Your task to perform on an android device: What is the recent news? Image 0: 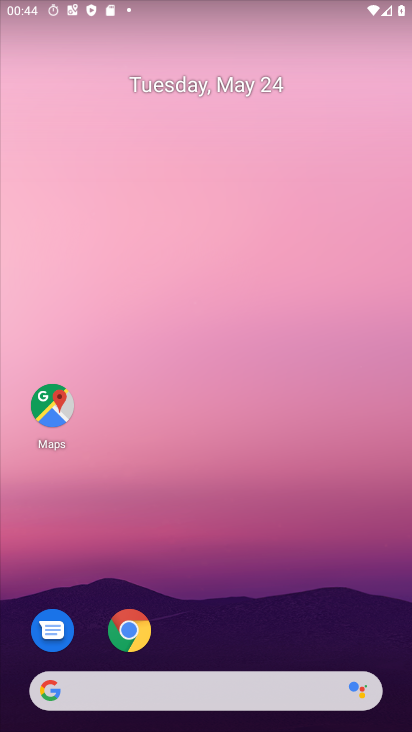
Step 0: click (96, 687)
Your task to perform on an android device: What is the recent news? Image 1: 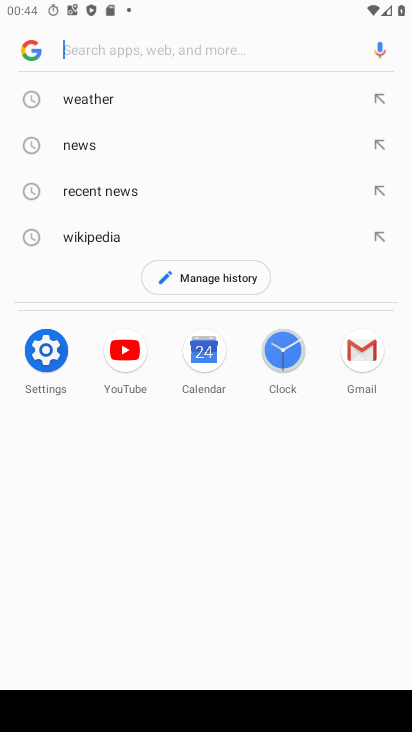
Step 1: click (87, 196)
Your task to perform on an android device: What is the recent news? Image 2: 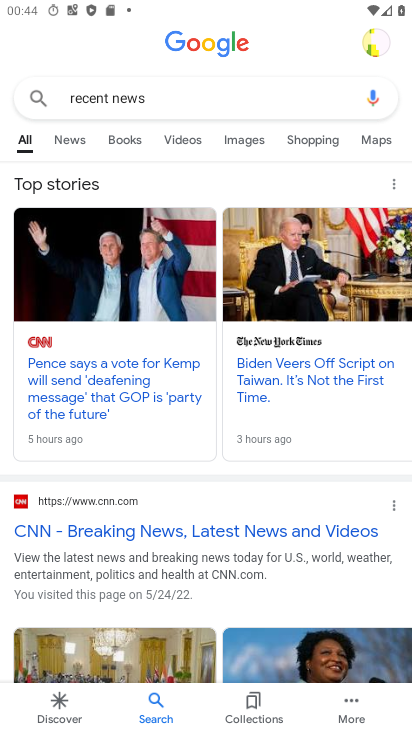
Step 2: click (65, 139)
Your task to perform on an android device: What is the recent news? Image 3: 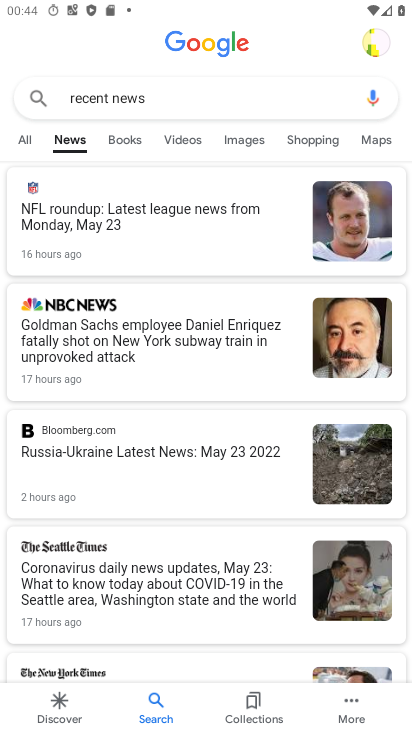
Step 3: click (66, 464)
Your task to perform on an android device: What is the recent news? Image 4: 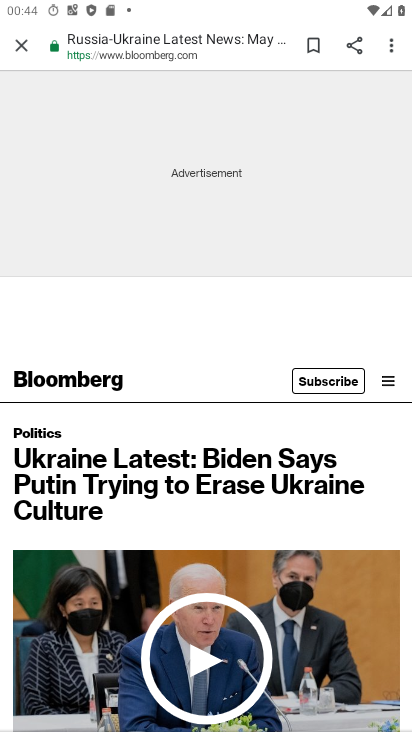
Step 4: task complete